Your task to perform on an android device: Clear all items from cart on newegg. Search for "jbl charge 4" on newegg, select the first entry, and add it to the cart. Image 0: 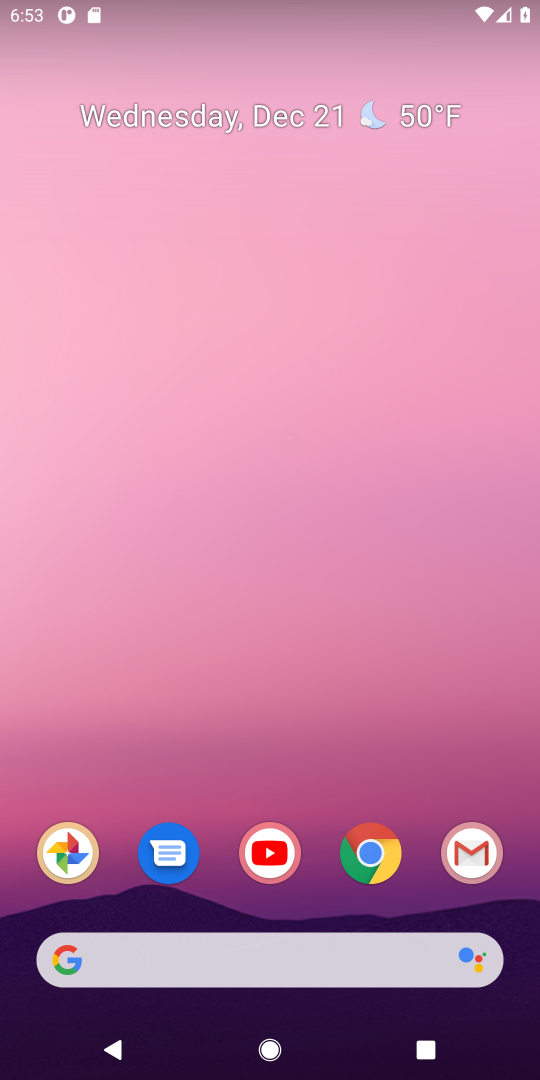
Step 0: click (376, 839)
Your task to perform on an android device: Clear all items from cart on newegg. Search for "jbl charge 4" on newegg, select the first entry, and add it to the cart. Image 1: 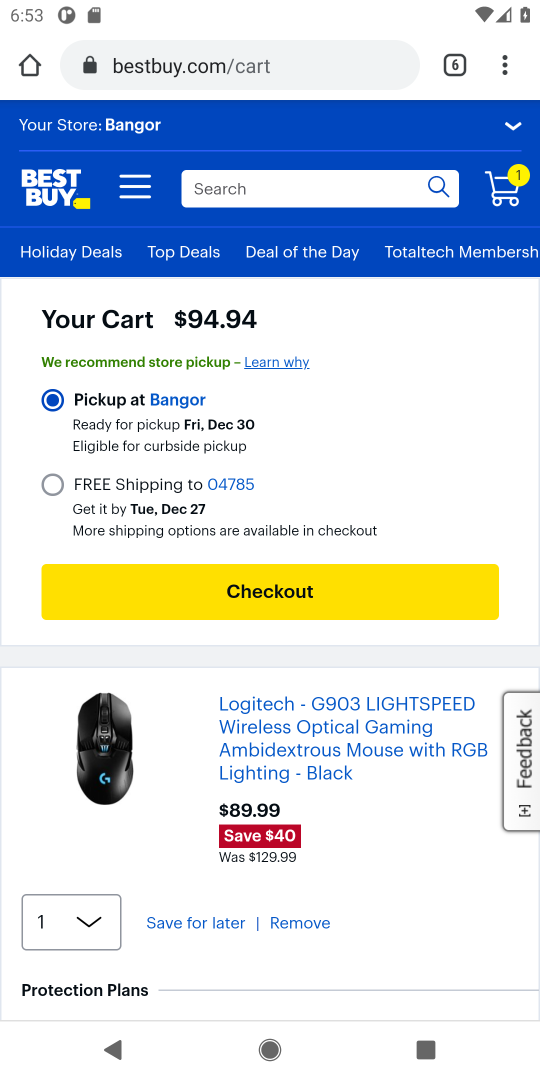
Step 1: click (454, 60)
Your task to perform on an android device: Clear all items from cart on newegg. Search for "jbl charge 4" on newegg, select the first entry, and add it to the cart. Image 2: 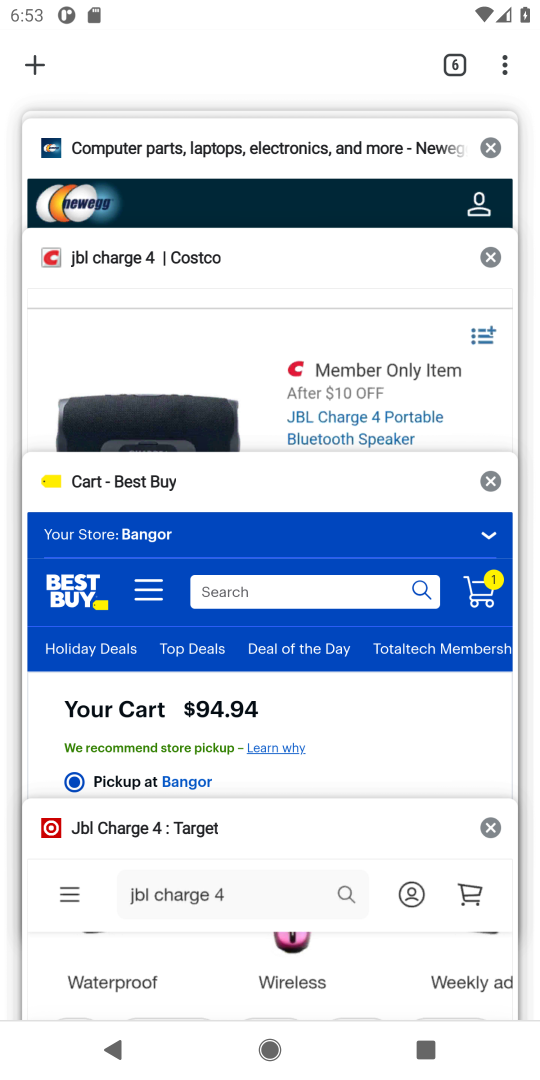
Step 2: click (143, 162)
Your task to perform on an android device: Clear all items from cart on newegg. Search for "jbl charge 4" on newegg, select the first entry, and add it to the cart. Image 3: 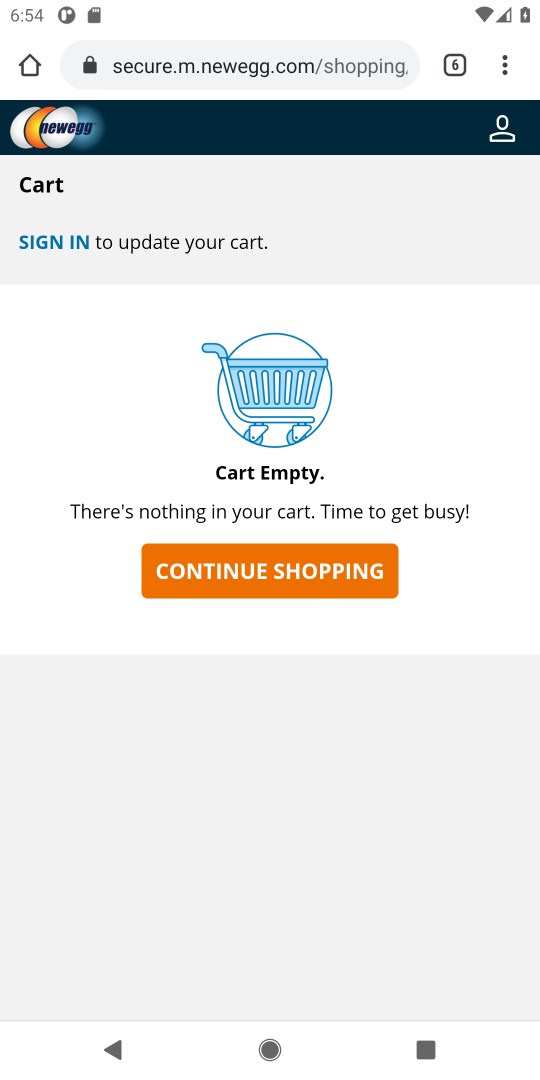
Step 3: click (305, 573)
Your task to perform on an android device: Clear all items from cart on newegg. Search for "jbl charge 4" on newegg, select the first entry, and add it to the cart. Image 4: 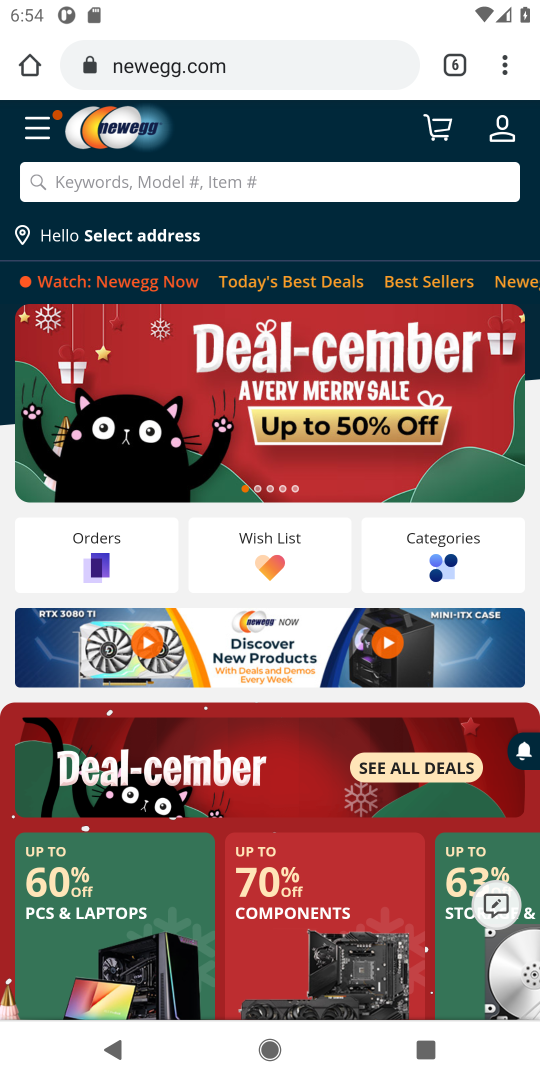
Step 4: click (372, 172)
Your task to perform on an android device: Clear all items from cart on newegg. Search for "jbl charge 4" on newegg, select the first entry, and add it to the cart. Image 5: 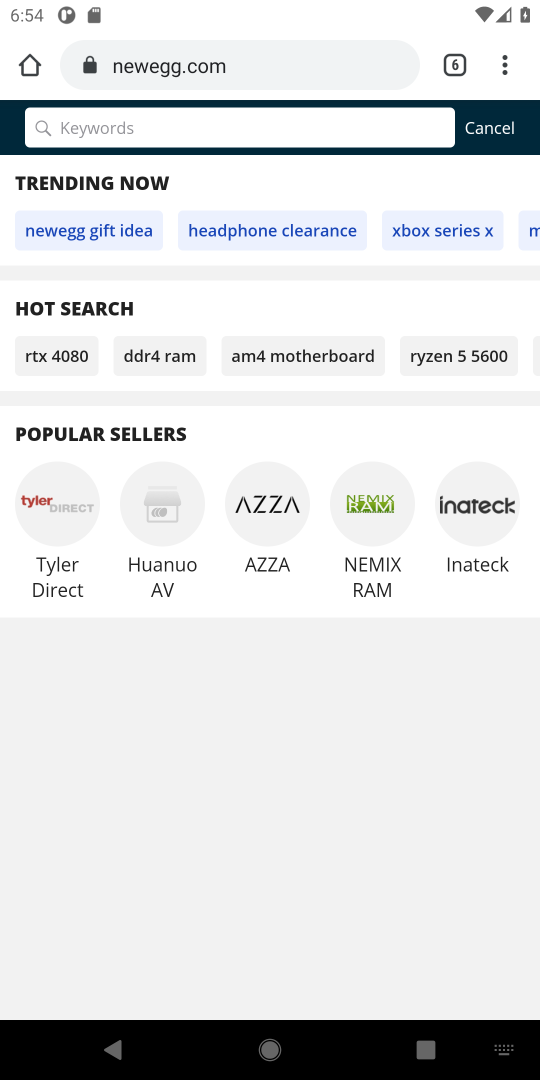
Step 5: type "jbl charge 4"
Your task to perform on an android device: Clear all items from cart on newegg. Search for "jbl charge 4" on newegg, select the first entry, and add it to the cart. Image 6: 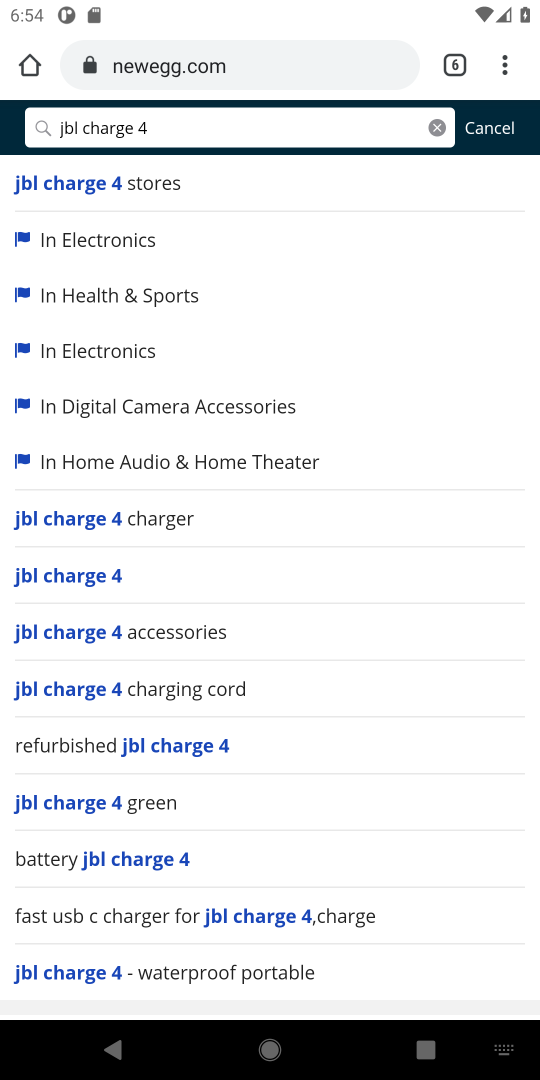
Step 6: click (72, 570)
Your task to perform on an android device: Clear all items from cart on newegg. Search for "jbl charge 4" on newegg, select the first entry, and add it to the cart. Image 7: 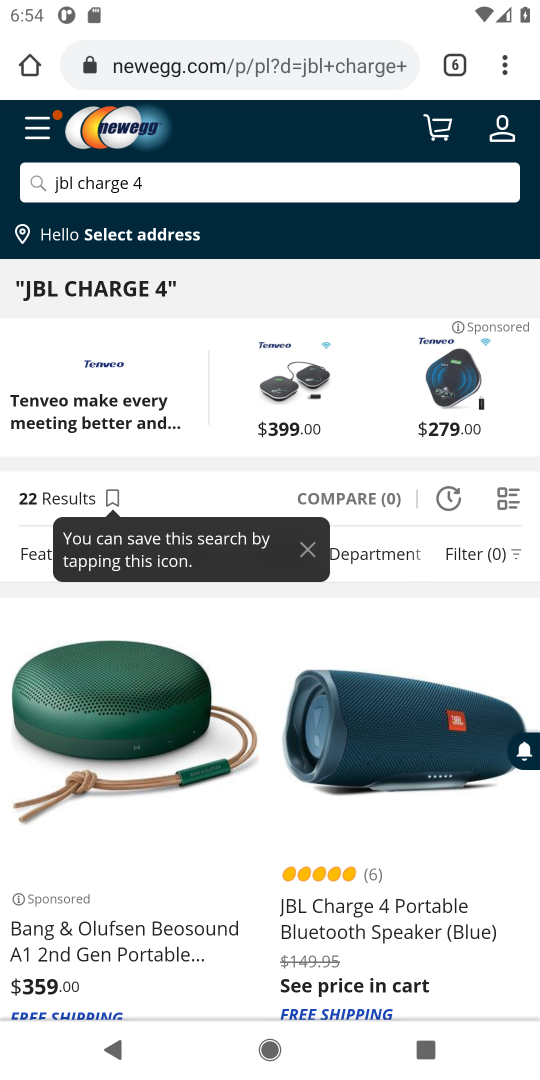
Step 7: drag from (247, 964) to (245, 482)
Your task to perform on an android device: Clear all items from cart on newegg. Search for "jbl charge 4" on newegg, select the first entry, and add it to the cart. Image 8: 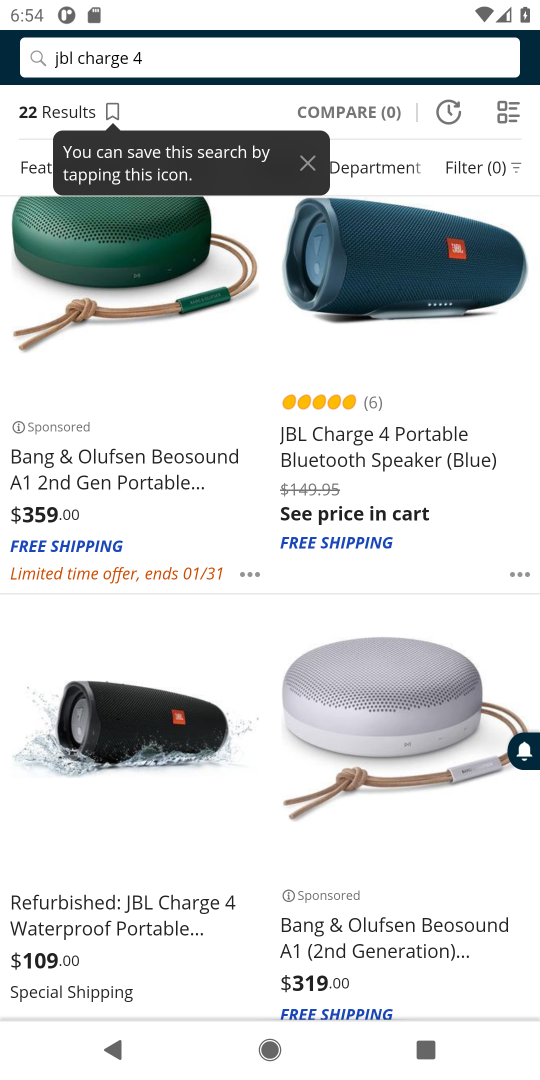
Step 8: click (328, 429)
Your task to perform on an android device: Clear all items from cart on newegg. Search for "jbl charge 4" on newegg, select the first entry, and add it to the cart. Image 9: 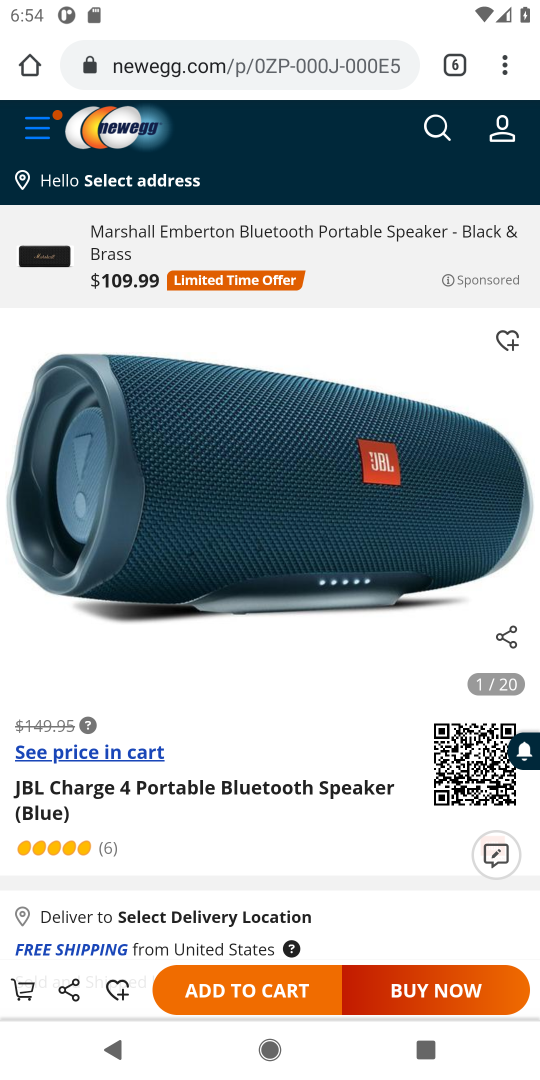
Step 9: click (248, 988)
Your task to perform on an android device: Clear all items from cart on newegg. Search for "jbl charge 4" on newegg, select the first entry, and add it to the cart. Image 10: 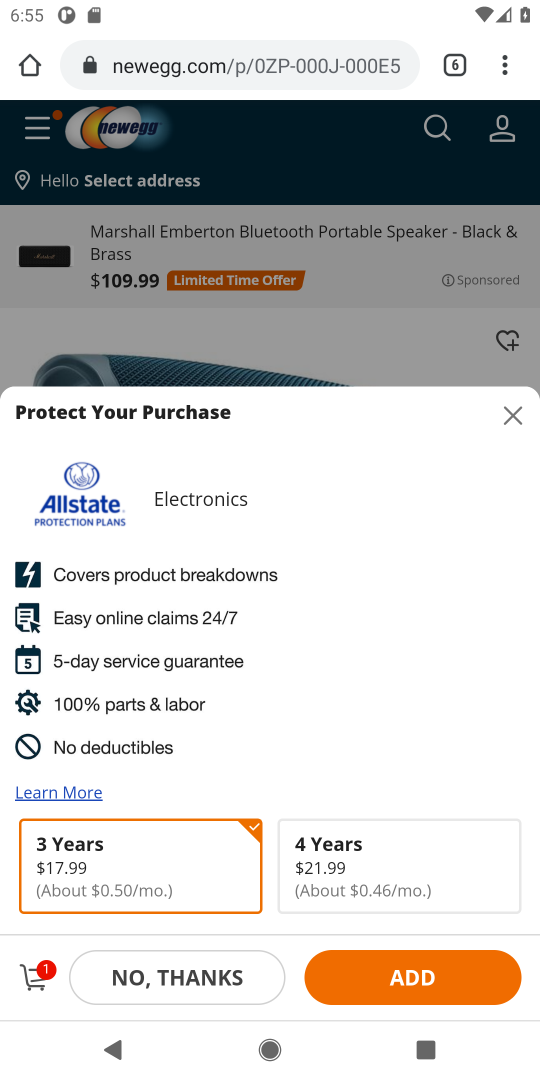
Step 10: task complete